Your task to perform on an android device: toggle translation in the chrome app Image 0: 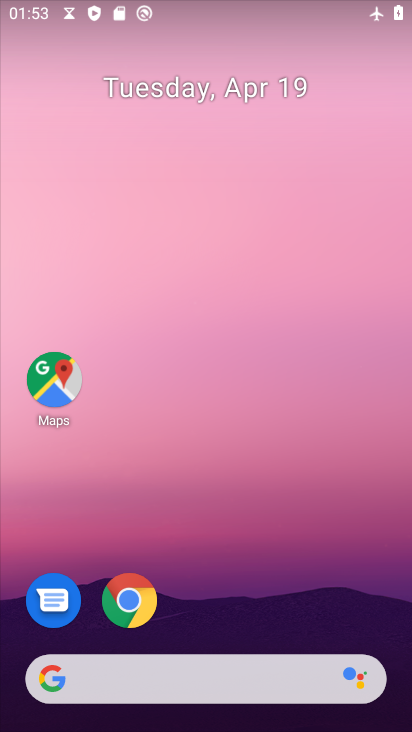
Step 0: click (129, 602)
Your task to perform on an android device: toggle translation in the chrome app Image 1: 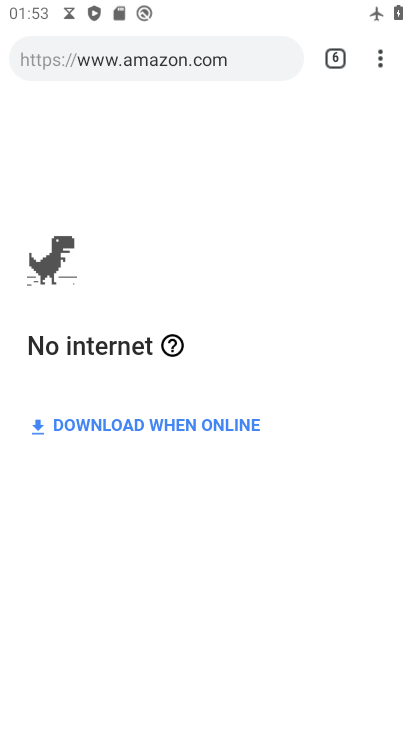
Step 1: click (373, 59)
Your task to perform on an android device: toggle translation in the chrome app Image 2: 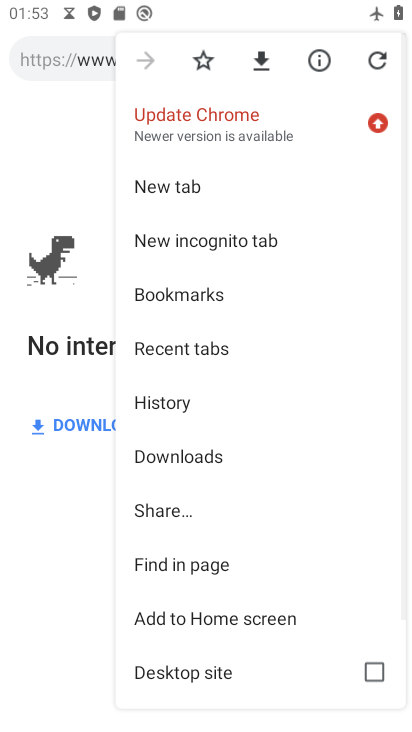
Step 2: drag from (204, 625) to (206, 206)
Your task to perform on an android device: toggle translation in the chrome app Image 3: 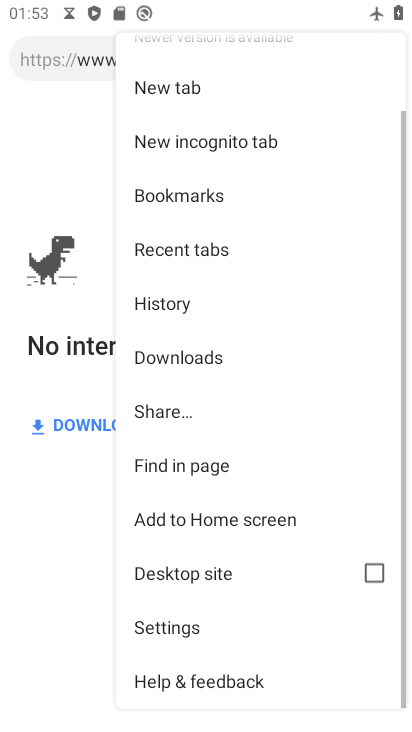
Step 3: click (157, 622)
Your task to perform on an android device: toggle translation in the chrome app Image 4: 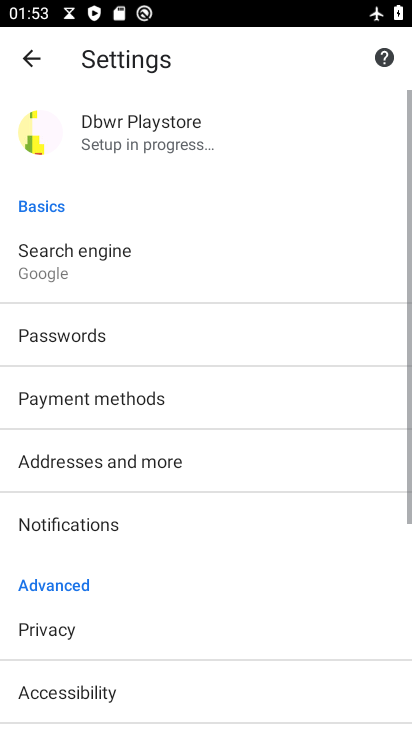
Step 4: drag from (176, 649) to (174, 192)
Your task to perform on an android device: toggle translation in the chrome app Image 5: 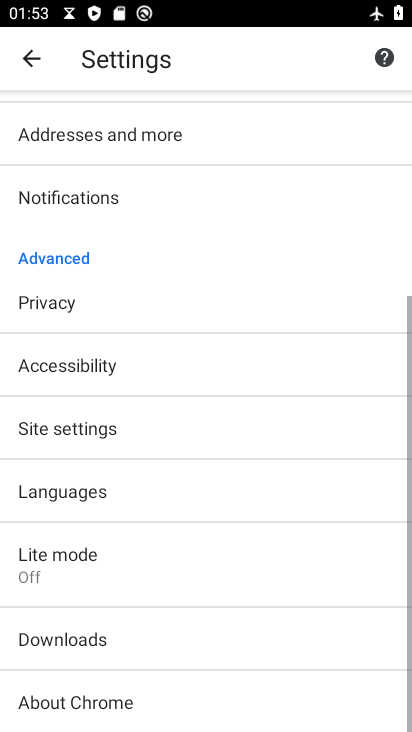
Step 5: click (63, 494)
Your task to perform on an android device: toggle translation in the chrome app Image 6: 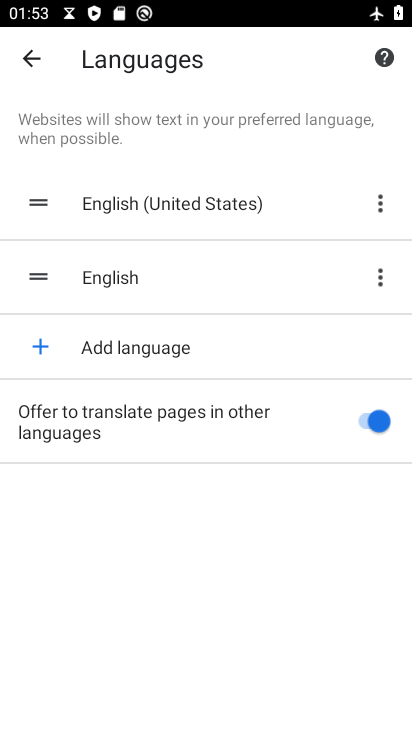
Step 6: click (370, 413)
Your task to perform on an android device: toggle translation in the chrome app Image 7: 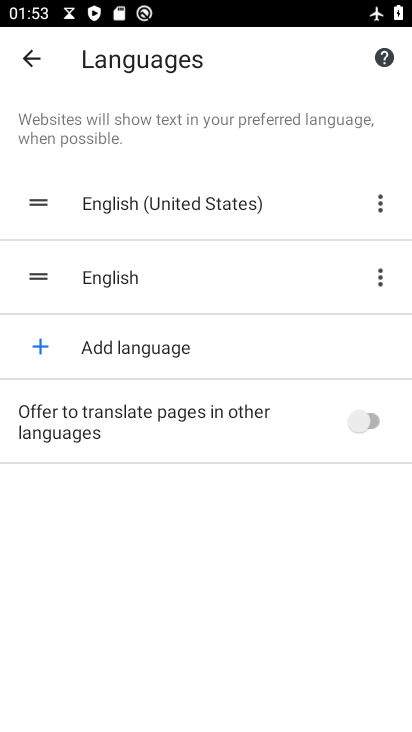
Step 7: task complete